Your task to perform on an android device: turn pop-ups off in chrome Image 0: 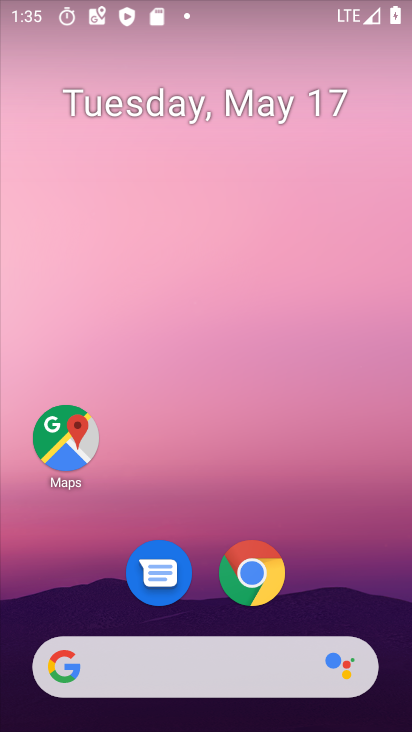
Step 0: click (260, 580)
Your task to perform on an android device: turn pop-ups off in chrome Image 1: 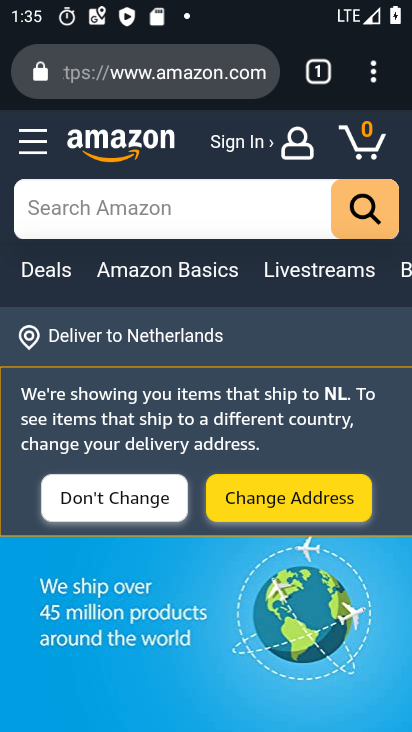
Step 1: click (378, 68)
Your task to perform on an android device: turn pop-ups off in chrome Image 2: 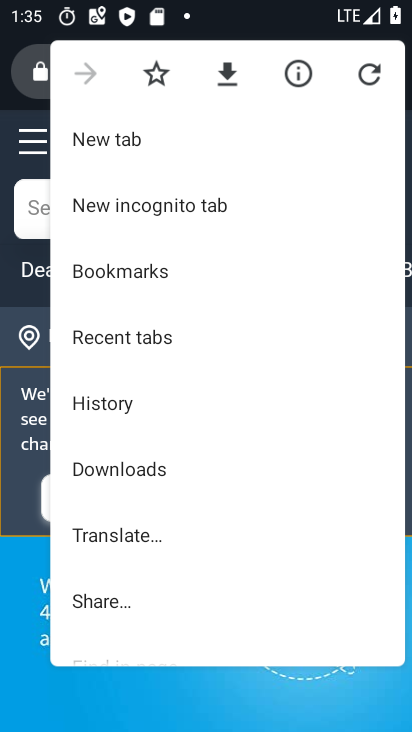
Step 2: drag from (293, 572) to (273, 203)
Your task to perform on an android device: turn pop-ups off in chrome Image 3: 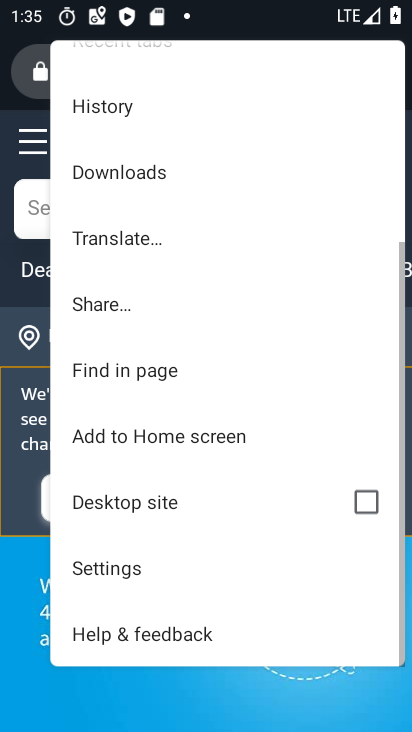
Step 3: click (110, 565)
Your task to perform on an android device: turn pop-ups off in chrome Image 4: 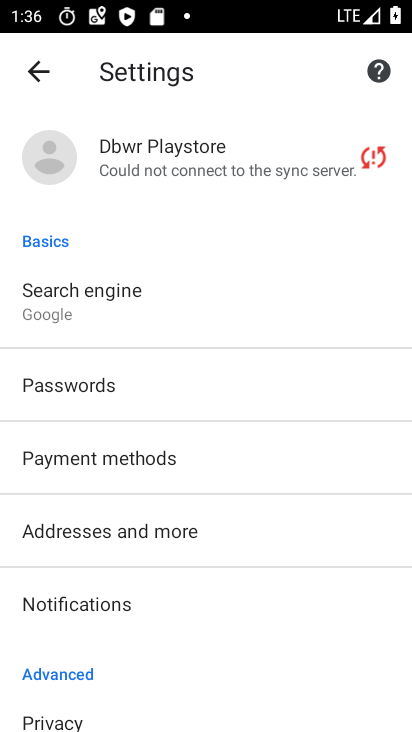
Step 4: drag from (165, 593) to (144, 54)
Your task to perform on an android device: turn pop-ups off in chrome Image 5: 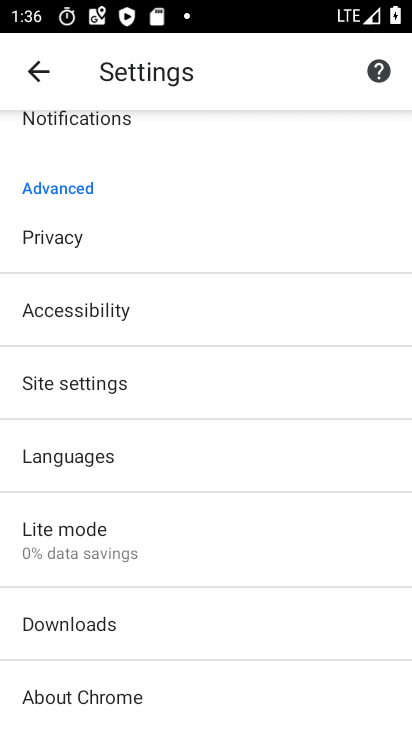
Step 5: click (63, 372)
Your task to perform on an android device: turn pop-ups off in chrome Image 6: 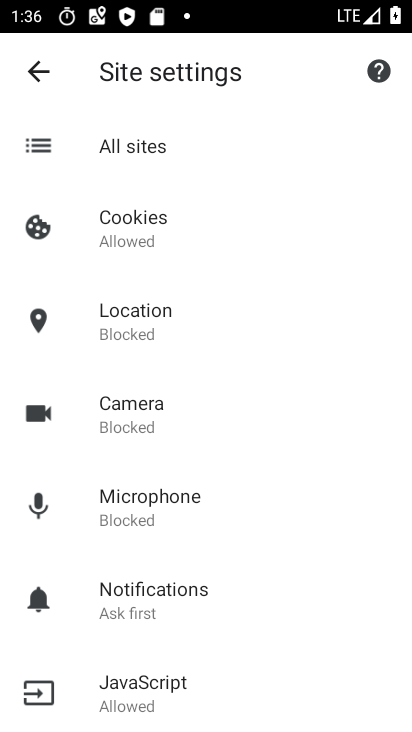
Step 6: drag from (217, 632) to (247, 112)
Your task to perform on an android device: turn pop-ups off in chrome Image 7: 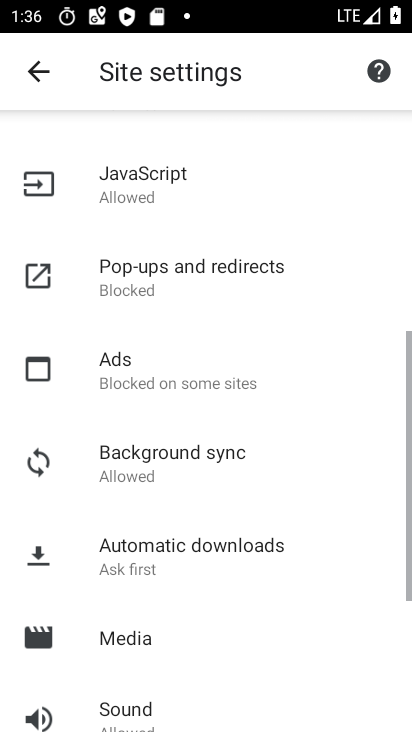
Step 7: click (155, 304)
Your task to perform on an android device: turn pop-ups off in chrome Image 8: 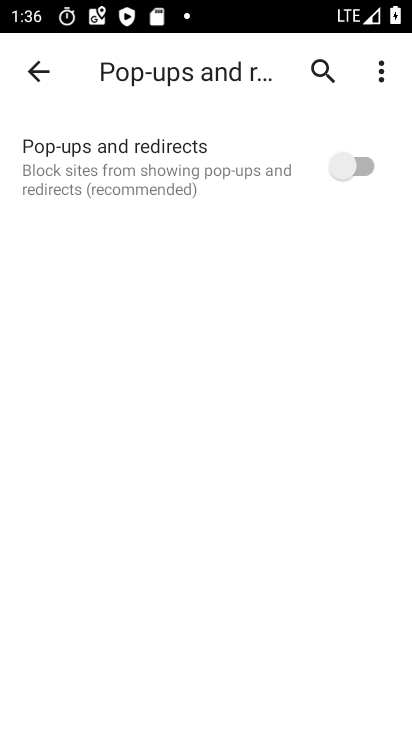
Step 8: task complete